Your task to perform on an android device: open a bookmark in the chrome app Image 0: 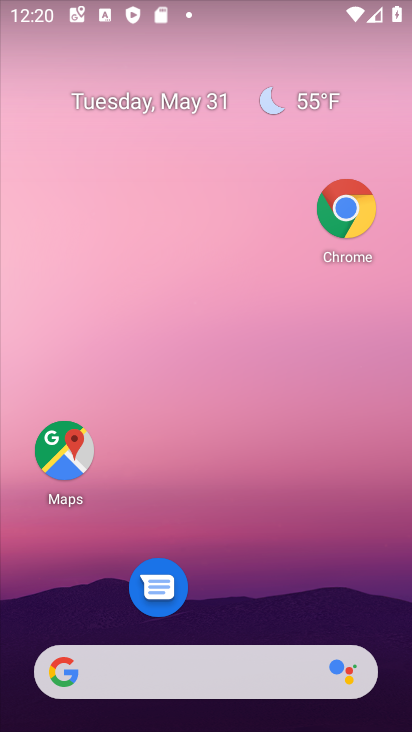
Step 0: click (352, 204)
Your task to perform on an android device: open a bookmark in the chrome app Image 1: 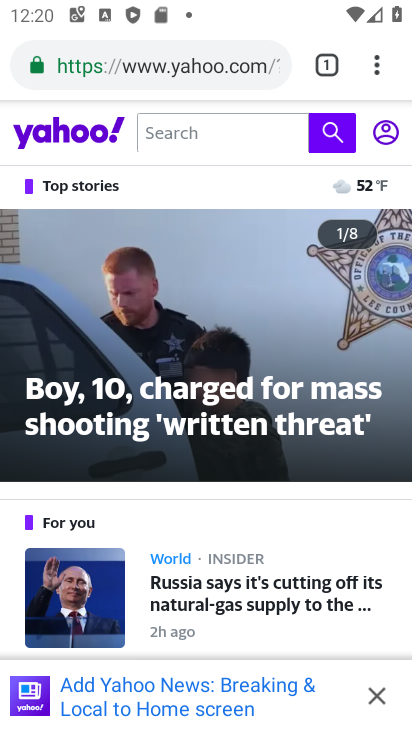
Step 1: click (382, 64)
Your task to perform on an android device: open a bookmark in the chrome app Image 2: 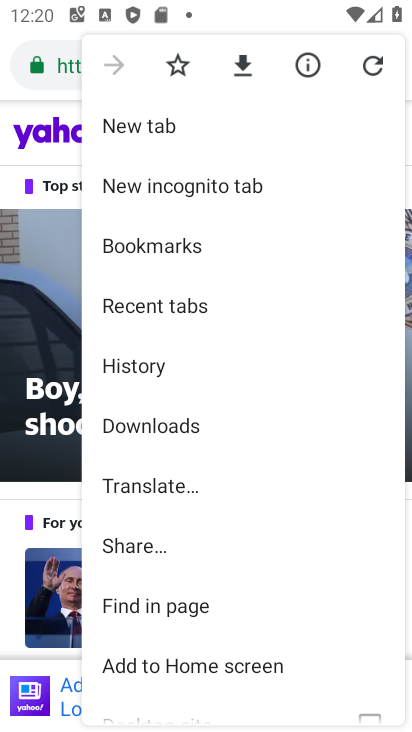
Step 2: click (158, 234)
Your task to perform on an android device: open a bookmark in the chrome app Image 3: 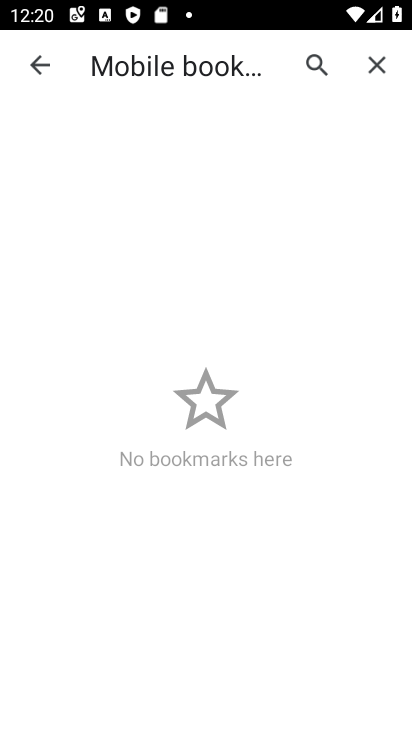
Step 3: task complete